Your task to perform on an android device: Go to eBay Image 0: 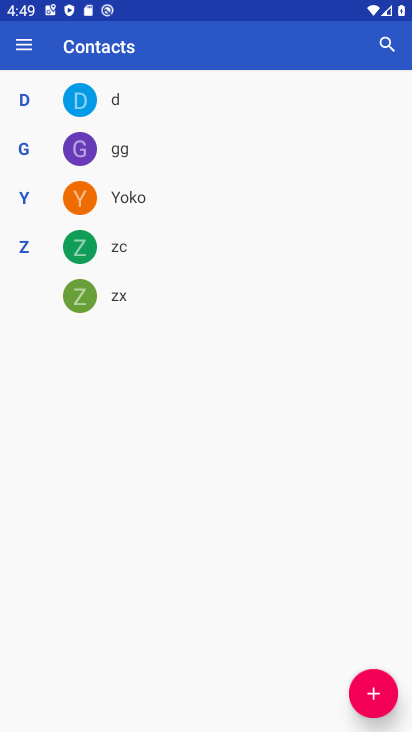
Step 0: press home button
Your task to perform on an android device: Go to eBay Image 1: 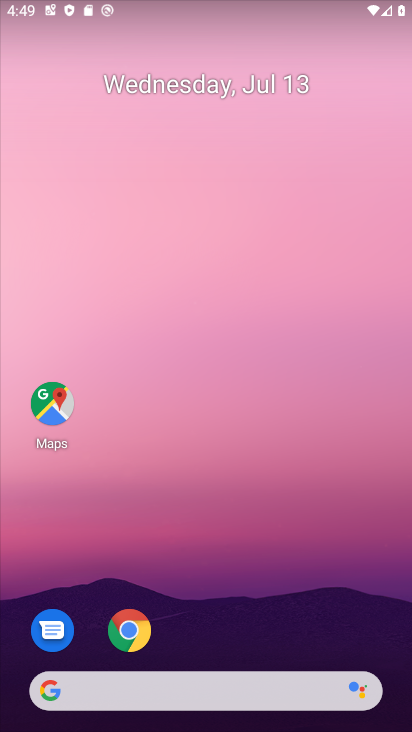
Step 1: click (136, 638)
Your task to perform on an android device: Go to eBay Image 2: 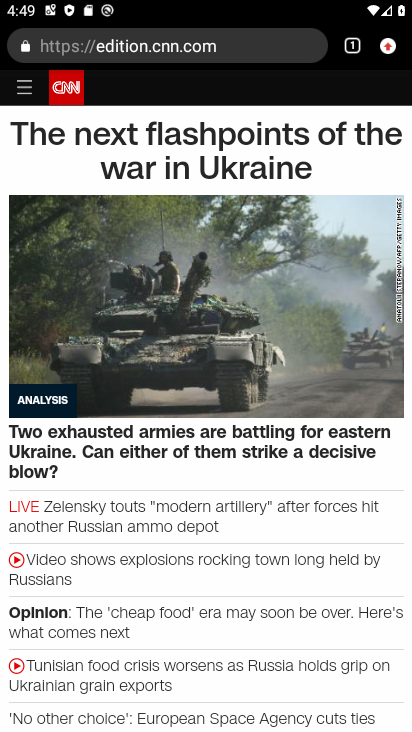
Step 2: drag from (392, 50) to (353, 141)
Your task to perform on an android device: Go to eBay Image 3: 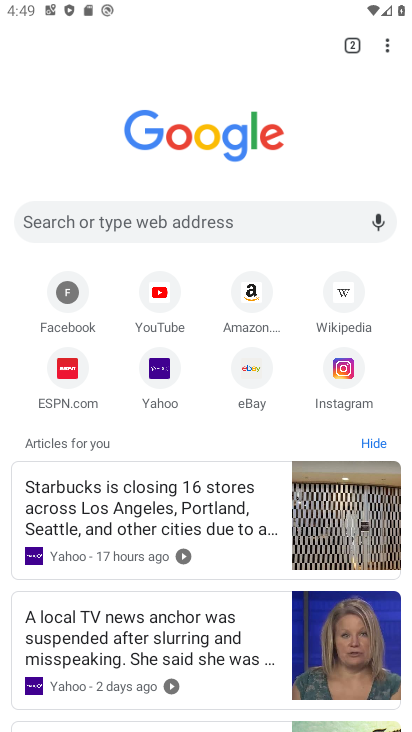
Step 3: click (253, 372)
Your task to perform on an android device: Go to eBay Image 4: 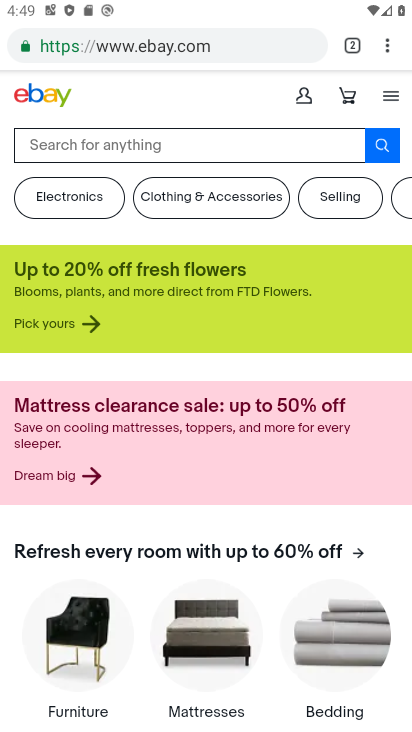
Step 4: task complete